Your task to perform on an android device: Open sound settings Image 0: 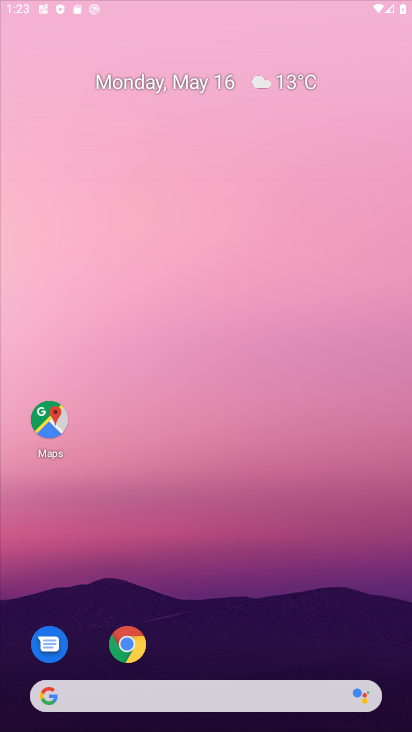
Step 0: click (240, 45)
Your task to perform on an android device: Open sound settings Image 1: 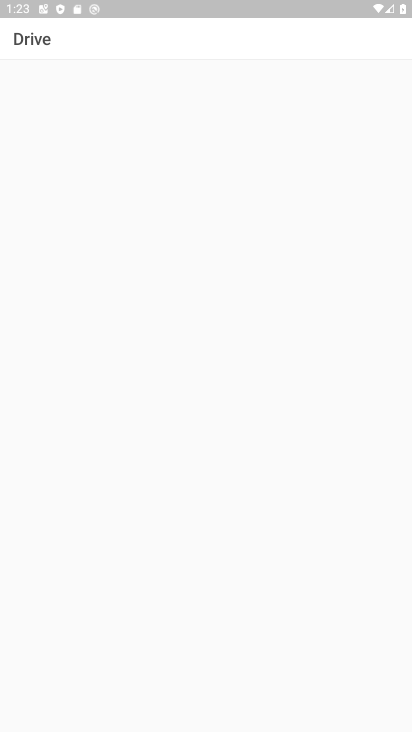
Step 1: press home button
Your task to perform on an android device: Open sound settings Image 2: 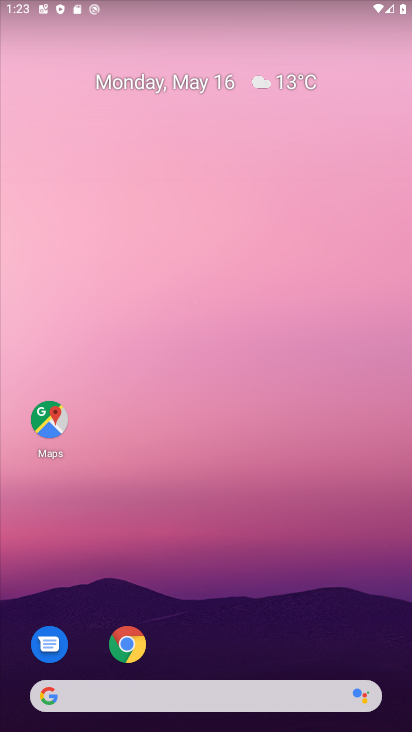
Step 2: drag from (191, 679) to (302, 55)
Your task to perform on an android device: Open sound settings Image 3: 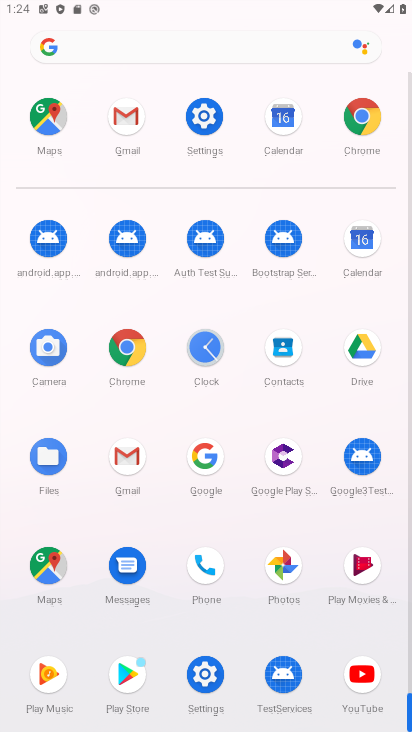
Step 3: click (219, 141)
Your task to perform on an android device: Open sound settings Image 4: 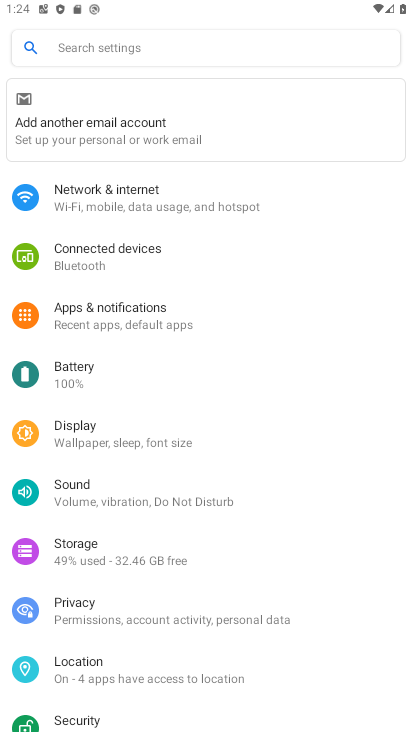
Step 4: drag from (164, 504) to (174, 326)
Your task to perform on an android device: Open sound settings Image 5: 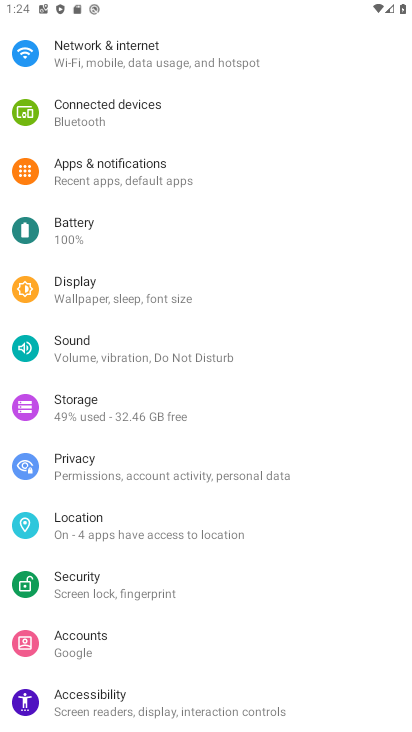
Step 5: click (106, 350)
Your task to perform on an android device: Open sound settings Image 6: 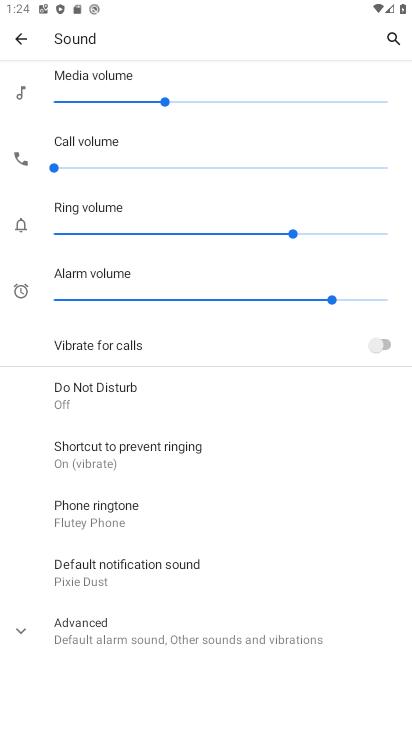
Step 6: task complete